Your task to perform on an android device: turn on bluetooth scan Image 0: 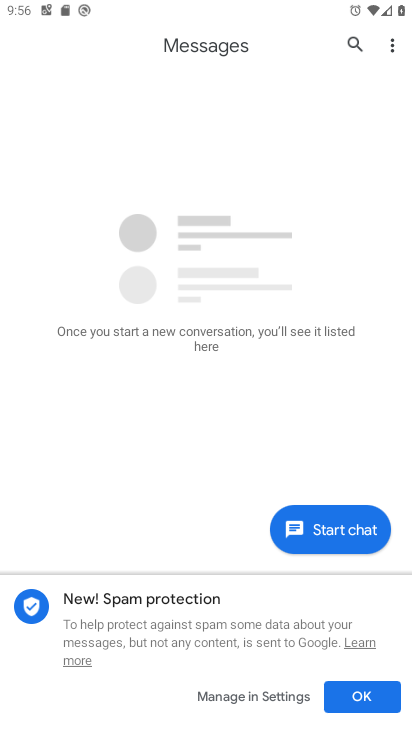
Step 0: press home button
Your task to perform on an android device: turn on bluetooth scan Image 1: 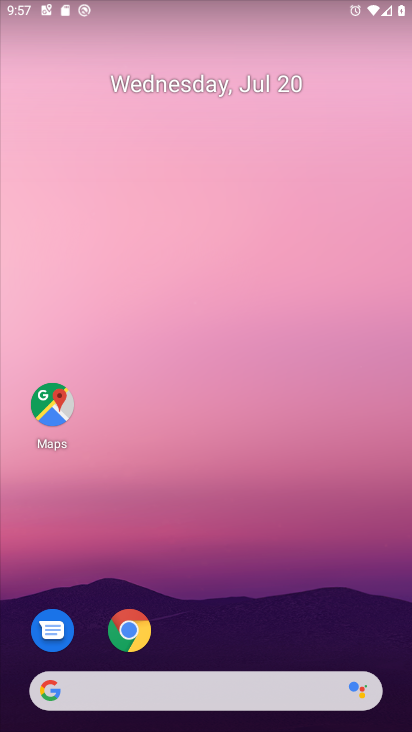
Step 1: drag from (215, 695) to (181, 72)
Your task to perform on an android device: turn on bluetooth scan Image 2: 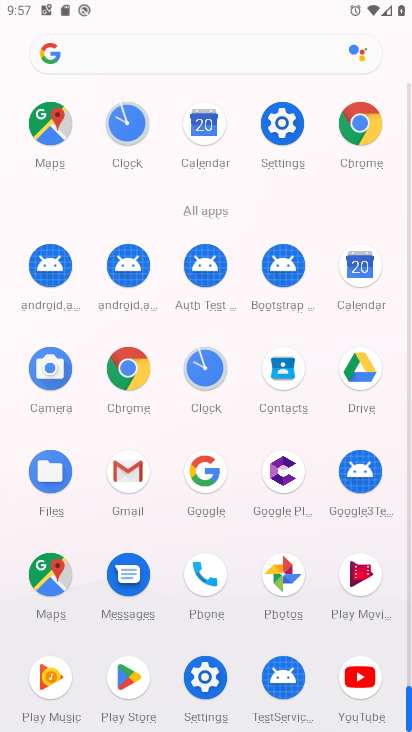
Step 2: click (296, 129)
Your task to perform on an android device: turn on bluetooth scan Image 3: 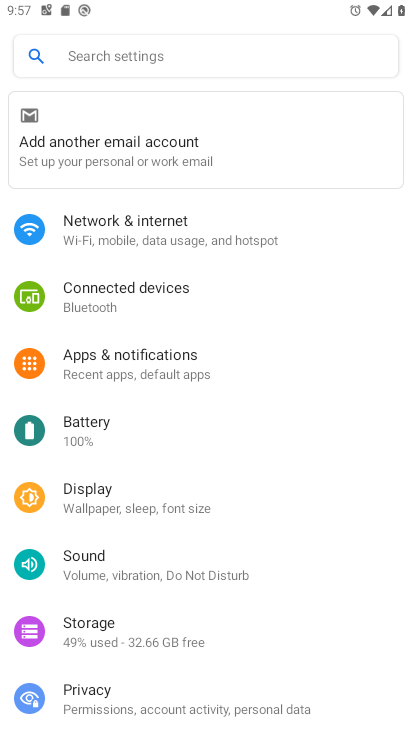
Step 3: drag from (133, 639) to (175, 192)
Your task to perform on an android device: turn on bluetooth scan Image 4: 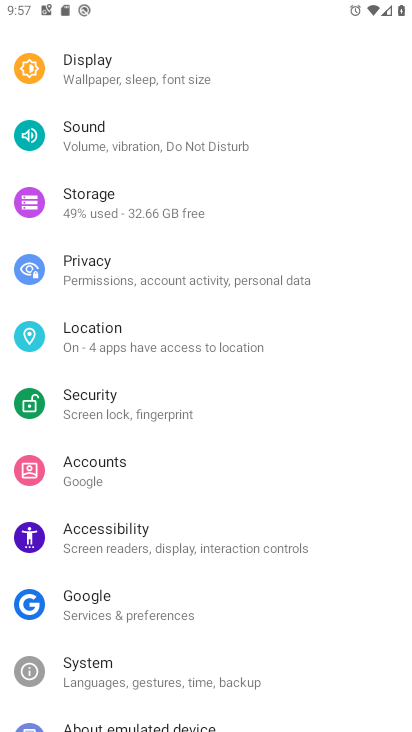
Step 4: click (143, 336)
Your task to perform on an android device: turn on bluetooth scan Image 5: 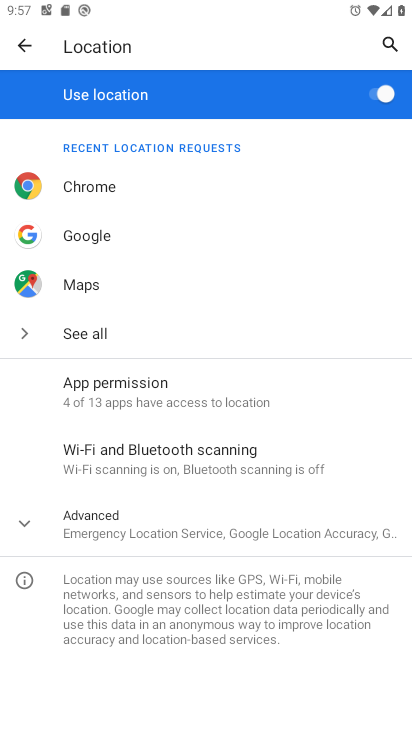
Step 5: click (142, 520)
Your task to perform on an android device: turn on bluetooth scan Image 6: 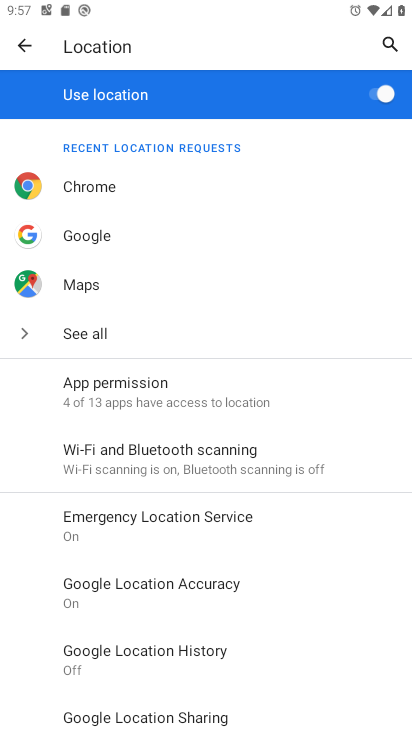
Step 6: click (155, 447)
Your task to perform on an android device: turn on bluetooth scan Image 7: 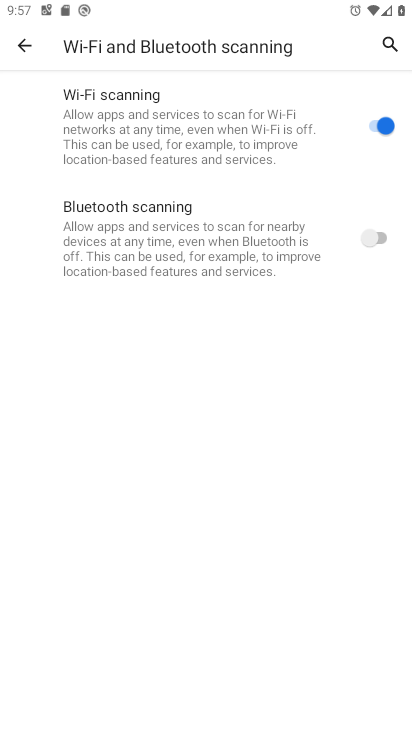
Step 7: click (385, 234)
Your task to perform on an android device: turn on bluetooth scan Image 8: 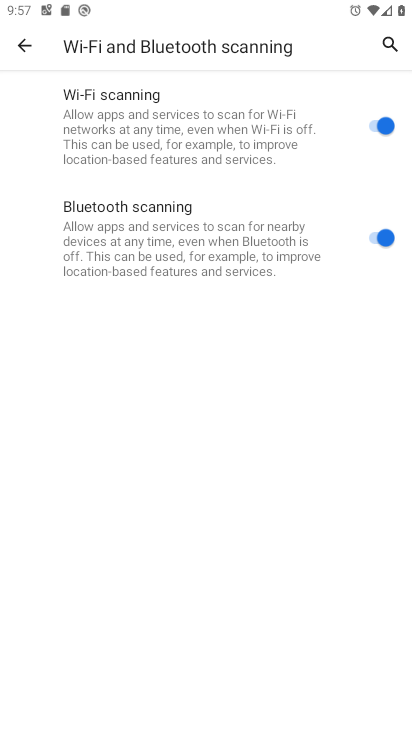
Step 8: task complete